Your task to perform on an android device: turn on sleep mode Image 0: 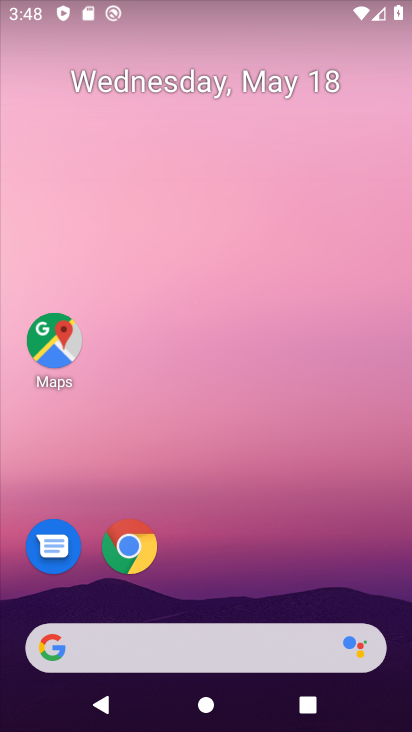
Step 0: drag from (222, 552) to (303, 82)
Your task to perform on an android device: turn on sleep mode Image 1: 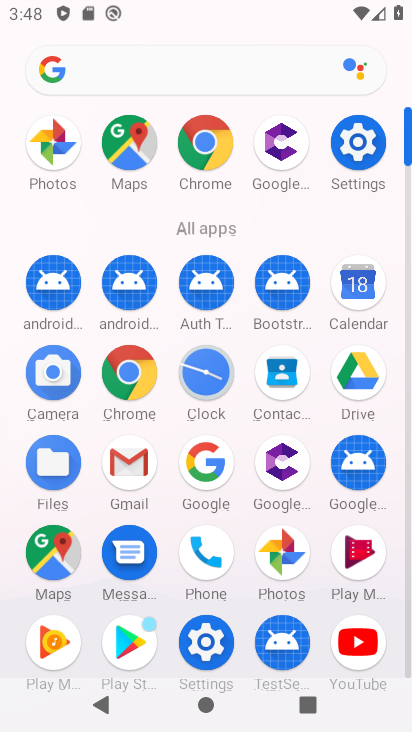
Step 1: click (354, 139)
Your task to perform on an android device: turn on sleep mode Image 2: 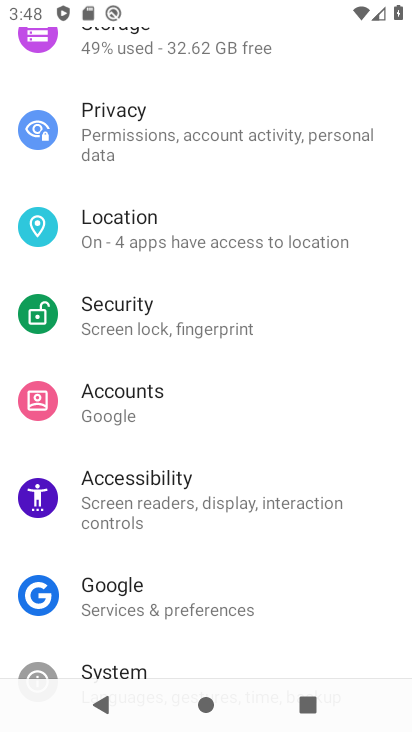
Step 2: click (372, 112)
Your task to perform on an android device: turn on sleep mode Image 3: 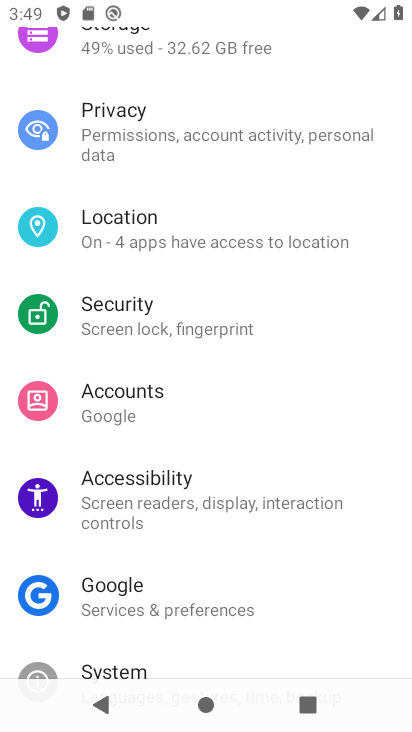
Step 3: drag from (212, 187) to (150, 688)
Your task to perform on an android device: turn on sleep mode Image 4: 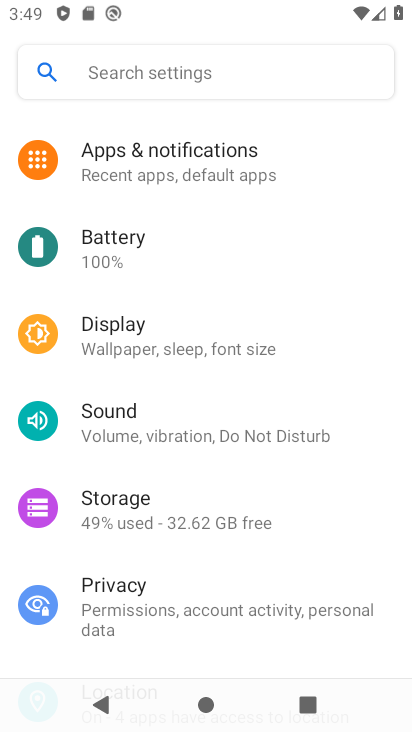
Step 4: click (195, 75)
Your task to perform on an android device: turn on sleep mode Image 5: 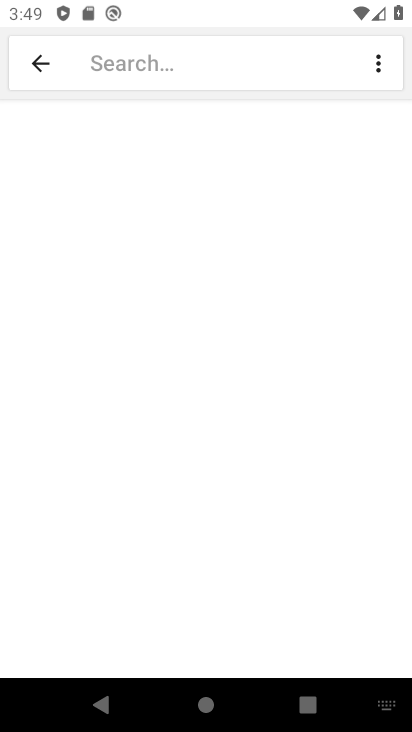
Step 5: type "sleep mode"
Your task to perform on an android device: turn on sleep mode Image 6: 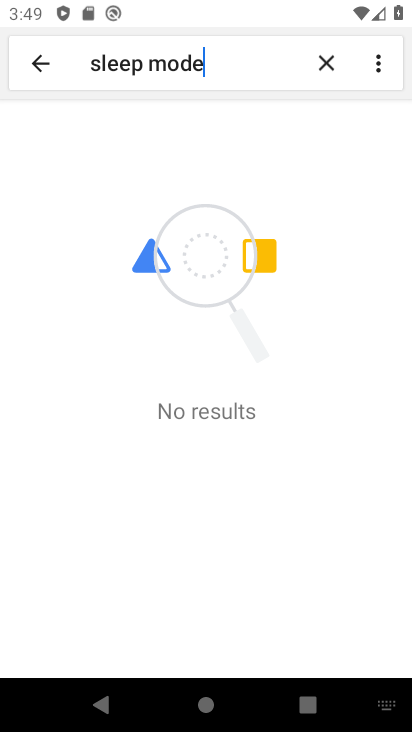
Step 6: task complete